Your task to perform on an android device: turn pop-ups off in chrome Image 0: 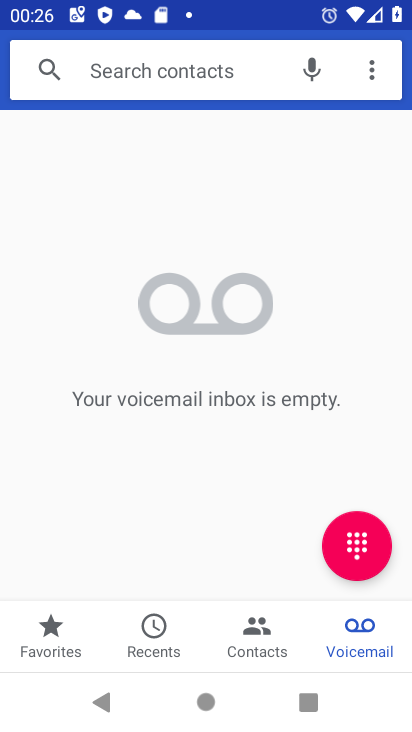
Step 0: press home button
Your task to perform on an android device: turn pop-ups off in chrome Image 1: 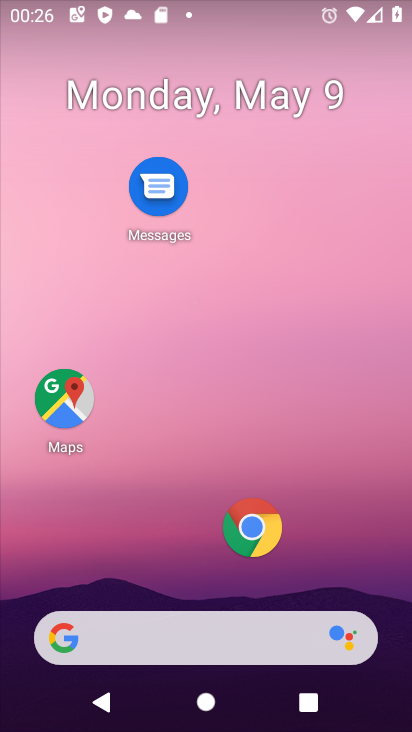
Step 1: click (184, 536)
Your task to perform on an android device: turn pop-ups off in chrome Image 2: 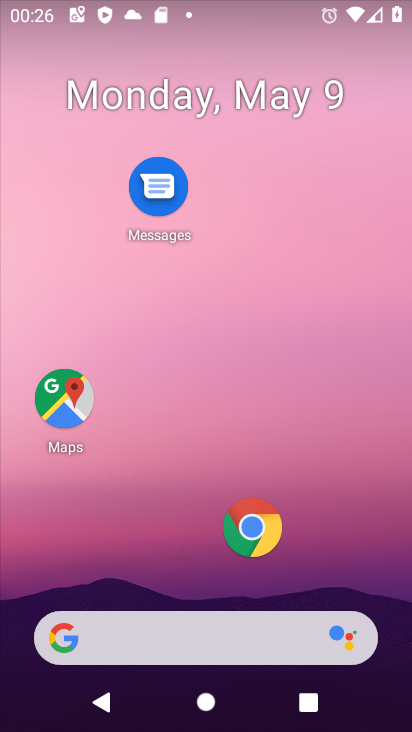
Step 2: click (255, 526)
Your task to perform on an android device: turn pop-ups off in chrome Image 3: 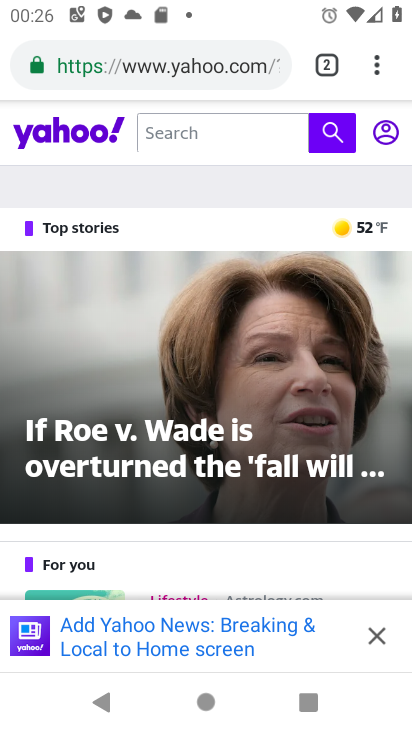
Step 3: click (369, 67)
Your task to perform on an android device: turn pop-ups off in chrome Image 4: 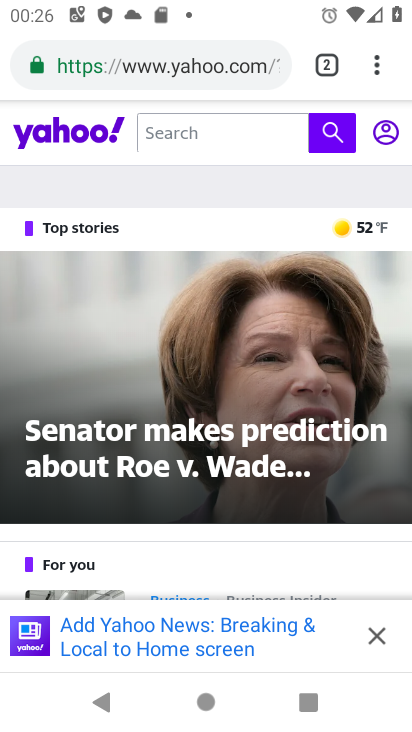
Step 4: click (373, 63)
Your task to perform on an android device: turn pop-ups off in chrome Image 5: 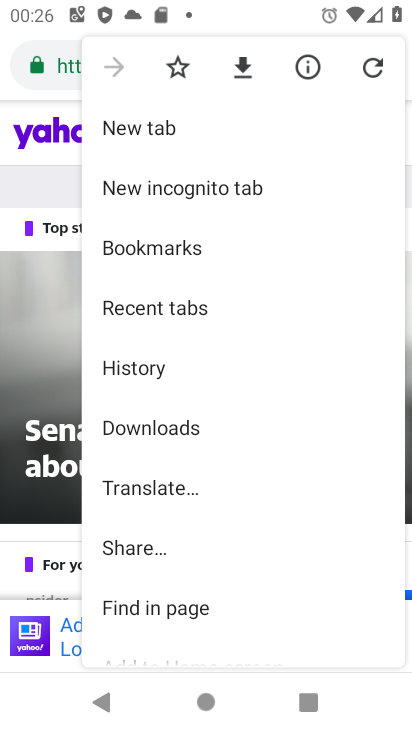
Step 5: drag from (235, 489) to (273, 66)
Your task to perform on an android device: turn pop-ups off in chrome Image 6: 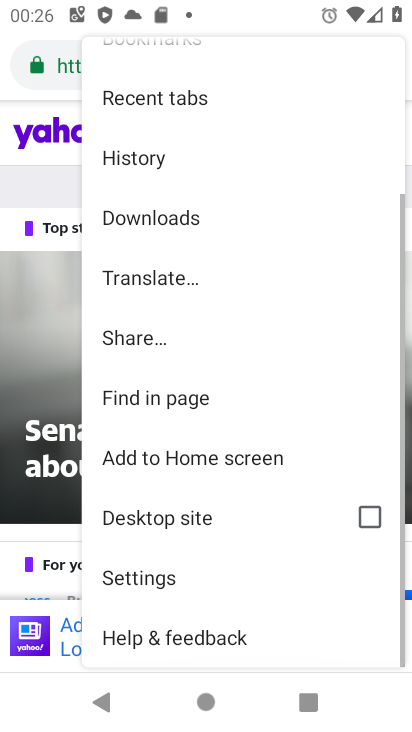
Step 6: click (150, 562)
Your task to perform on an android device: turn pop-ups off in chrome Image 7: 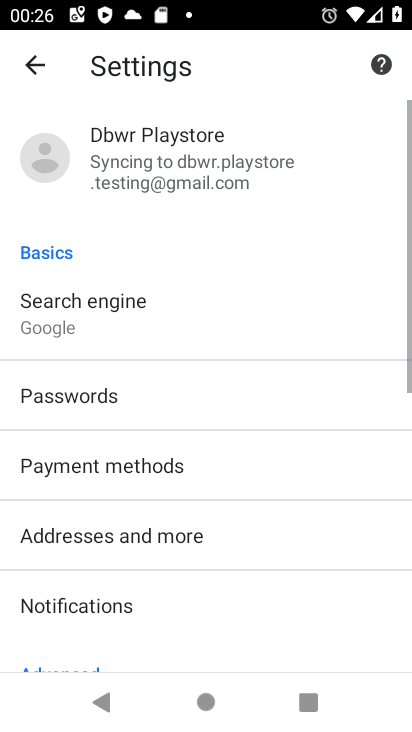
Step 7: drag from (165, 542) to (185, 101)
Your task to perform on an android device: turn pop-ups off in chrome Image 8: 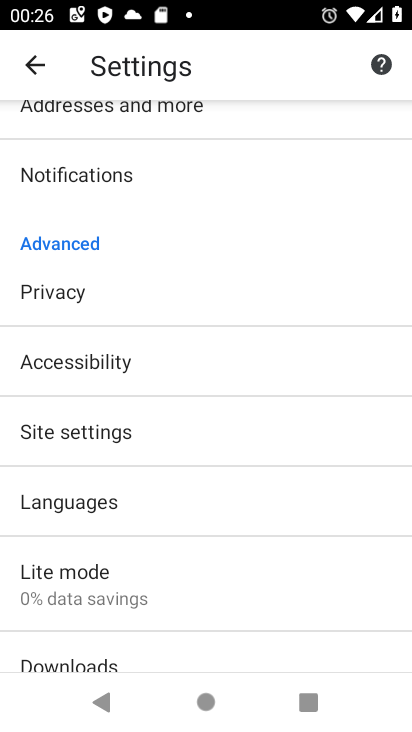
Step 8: drag from (127, 237) to (175, 180)
Your task to perform on an android device: turn pop-ups off in chrome Image 9: 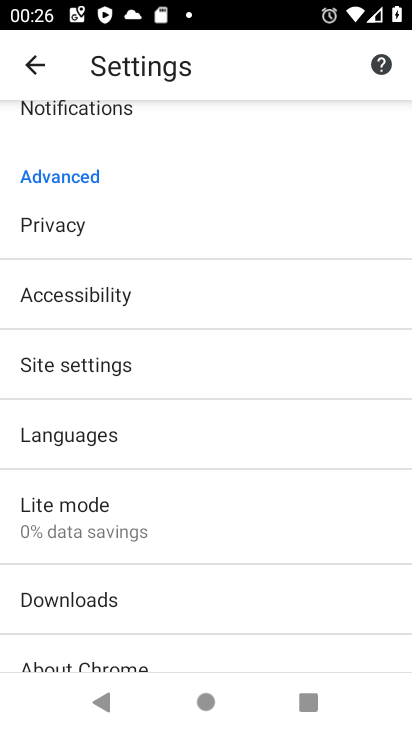
Step 9: drag from (145, 516) to (210, 576)
Your task to perform on an android device: turn pop-ups off in chrome Image 10: 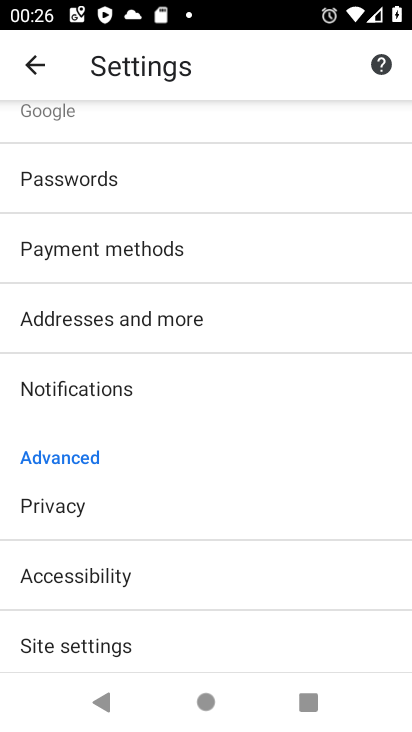
Step 10: click (95, 640)
Your task to perform on an android device: turn pop-ups off in chrome Image 11: 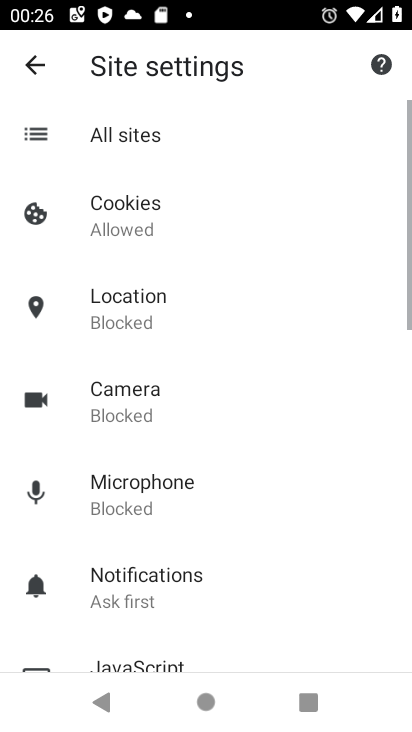
Step 11: drag from (252, 518) to (250, 238)
Your task to perform on an android device: turn pop-ups off in chrome Image 12: 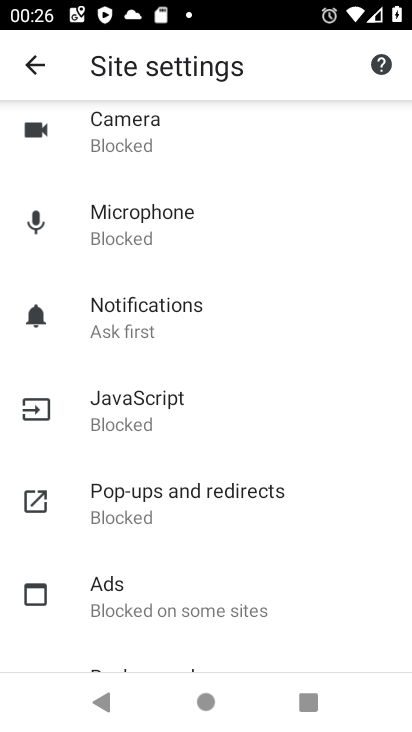
Step 12: click (183, 511)
Your task to perform on an android device: turn pop-ups off in chrome Image 13: 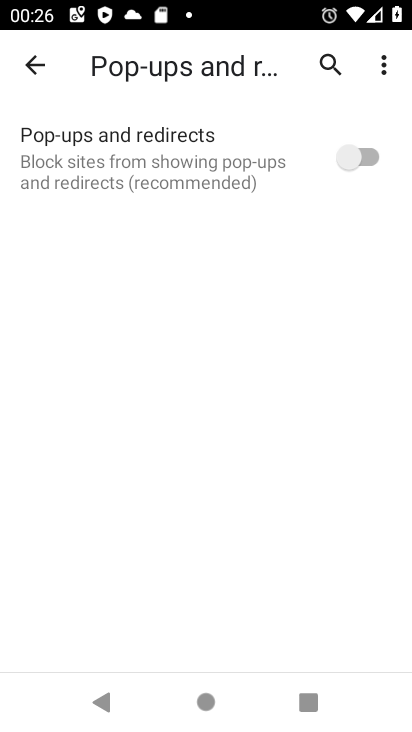
Step 13: task complete